Your task to perform on an android device: allow cookies in the chrome app Image 0: 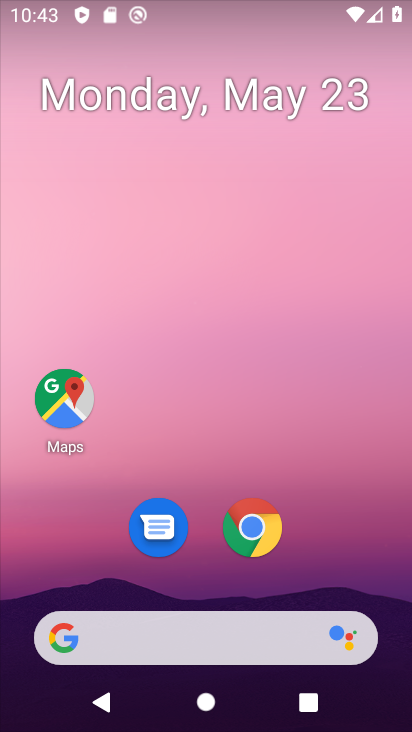
Step 0: click (251, 532)
Your task to perform on an android device: allow cookies in the chrome app Image 1: 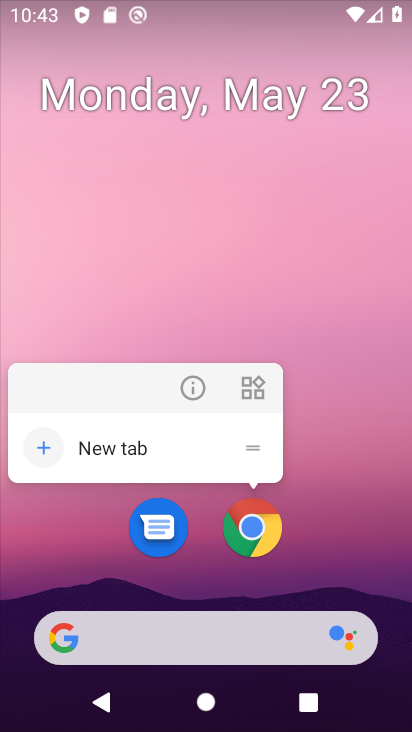
Step 1: click (262, 557)
Your task to perform on an android device: allow cookies in the chrome app Image 2: 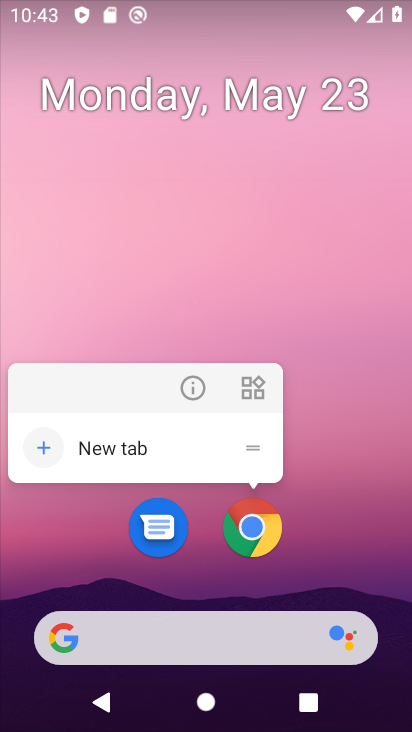
Step 2: click (267, 542)
Your task to perform on an android device: allow cookies in the chrome app Image 3: 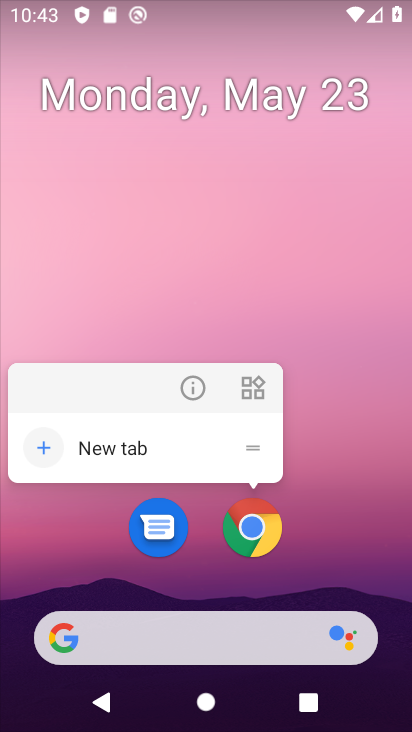
Step 3: click (266, 532)
Your task to perform on an android device: allow cookies in the chrome app Image 4: 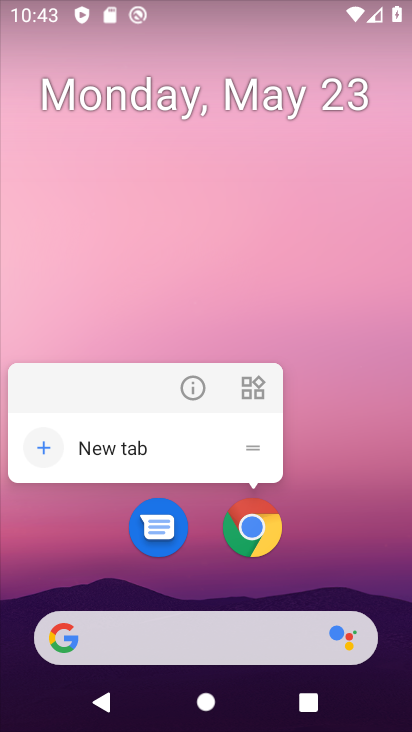
Step 4: click (255, 530)
Your task to perform on an android device: allow cookies in the chrome app Image 5: 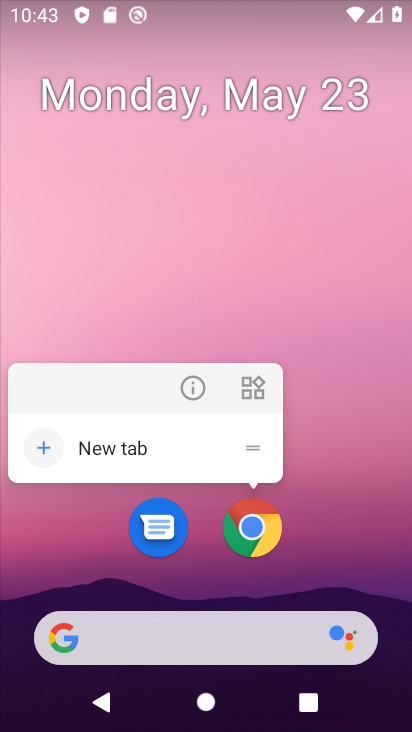
Step 5: click (248, 535)
Your task to perform on an android device: allow cookies in the chrome app Image 6: 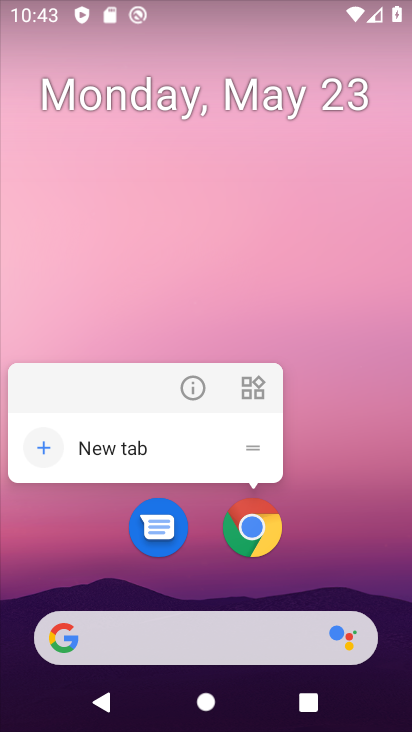
Step 6: click (248, 542)
Your task to perform on an android device: allow cookies in the chrome app Image 7: 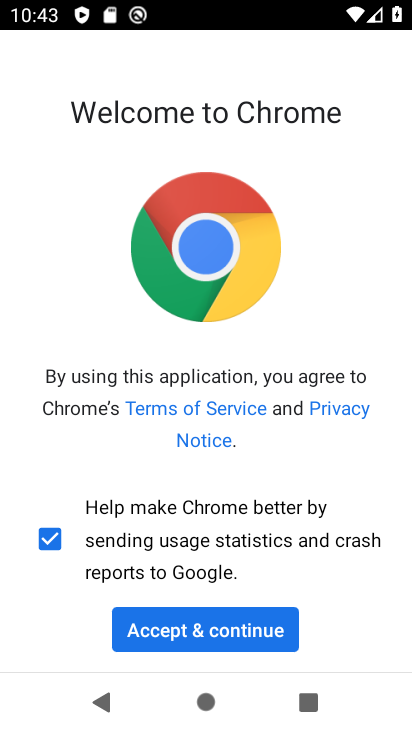
Step 7: click (259, 631)
Your task to perform on an android device: allow cookies in the chrome app Image 8: 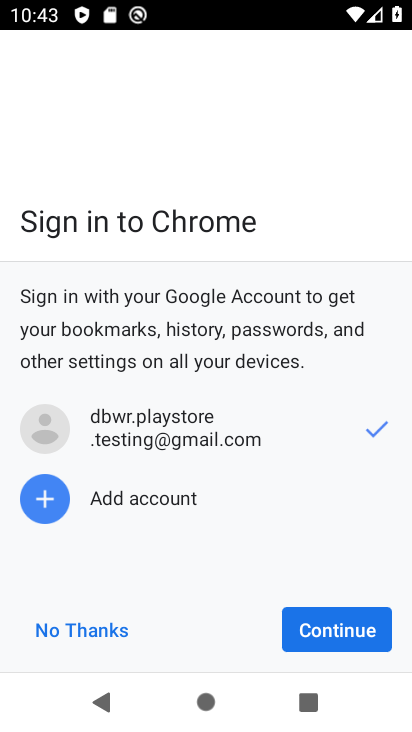
Step 8: click (329, 636)
Your task to perform on an android device: allow cookies in the chrome app Image 9: 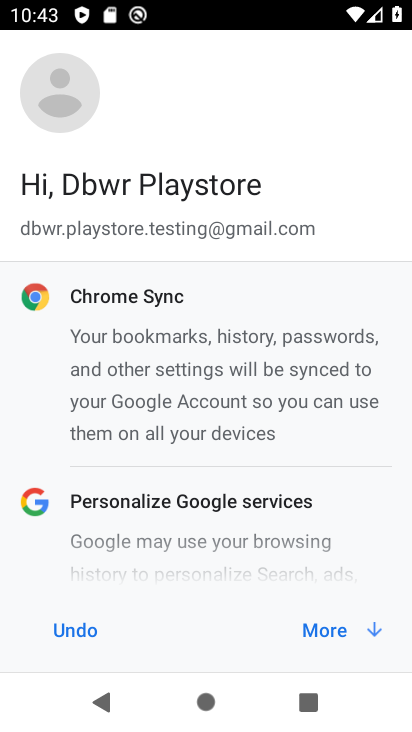
Step 9: click (328, 634)
Your task to perform on an android device: allow cookies in the chrome app Image 10: 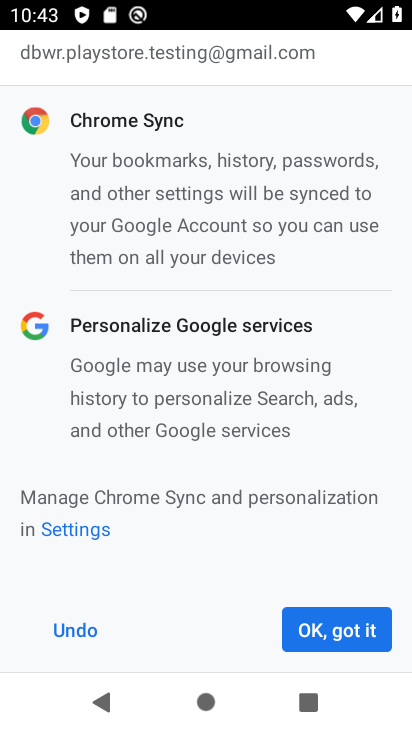
Step 10: click (327, 629)
Your task to perform on an android device: allow cookies in the chrome app Image 11: 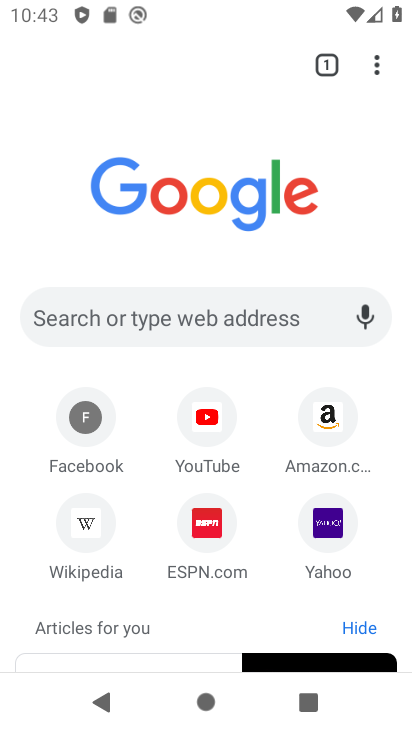
Step 11: drag from (382, 67) to (230, 549)
Your task to perform on an android device: allow cookies in the chrome app Image 12: 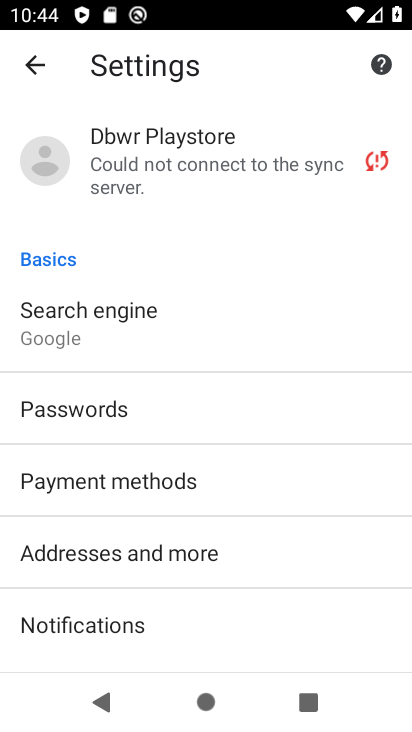
Step 12: drag from (233, 635) to (268, 246)
Your task to perform on an android device: allow cookies in the chrome app Image 13: 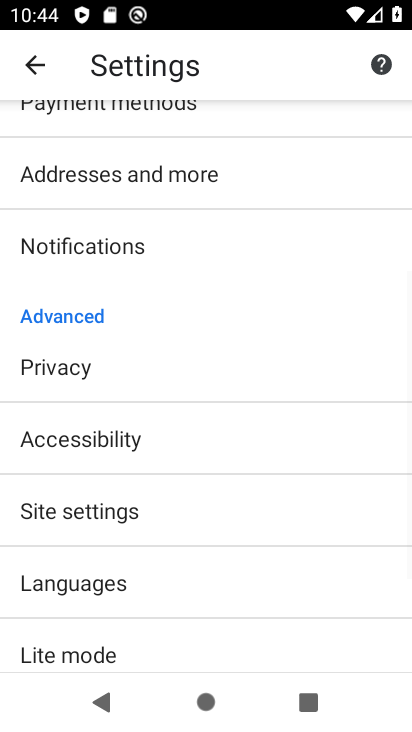
Step 13: click (176, 528)
Your task to perform on an android device: allow cookies in the chrome app Image 14: 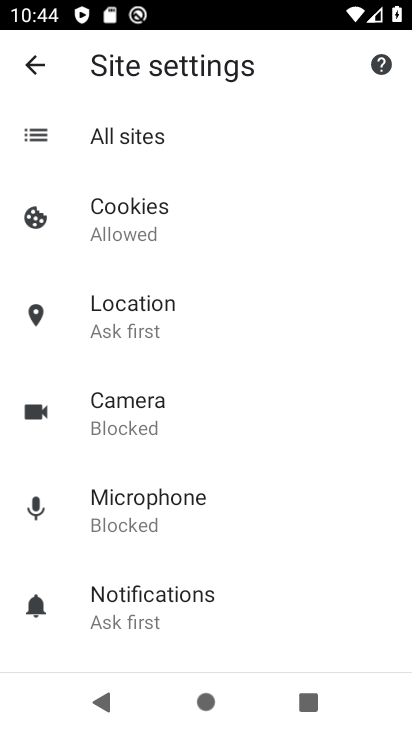
Step 14: click (241, 211)
Your task to perform on an android device: allow cookies in the chrome app Image 15: 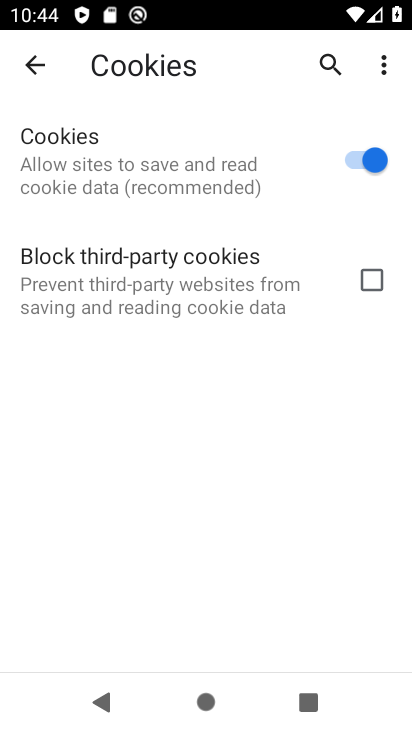
Step 15: task complete